Your task to perform on an android device: see tabs open on other devices in the chrome app Image 0: 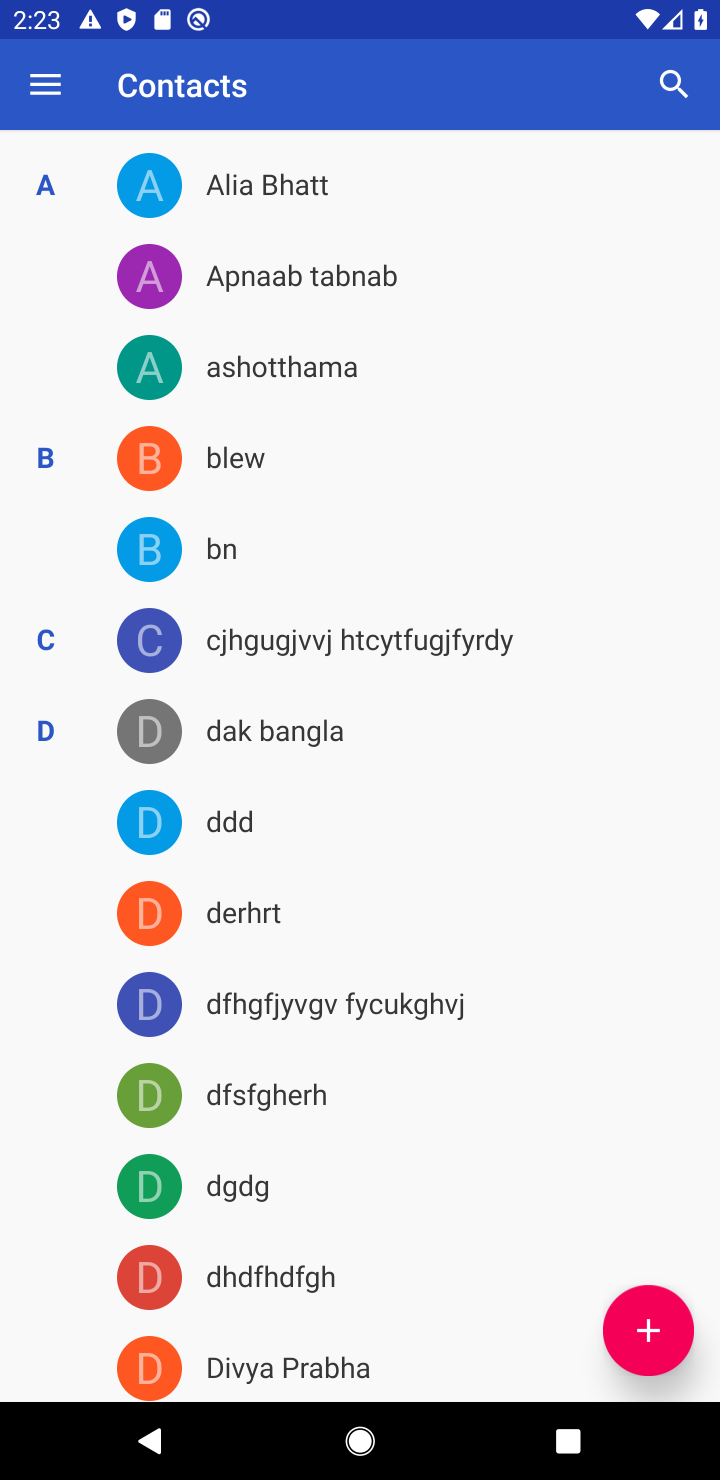
Step 0: press home button
Your task to perform on an android device: see tabs open on other devices in the chrome app Image 1: 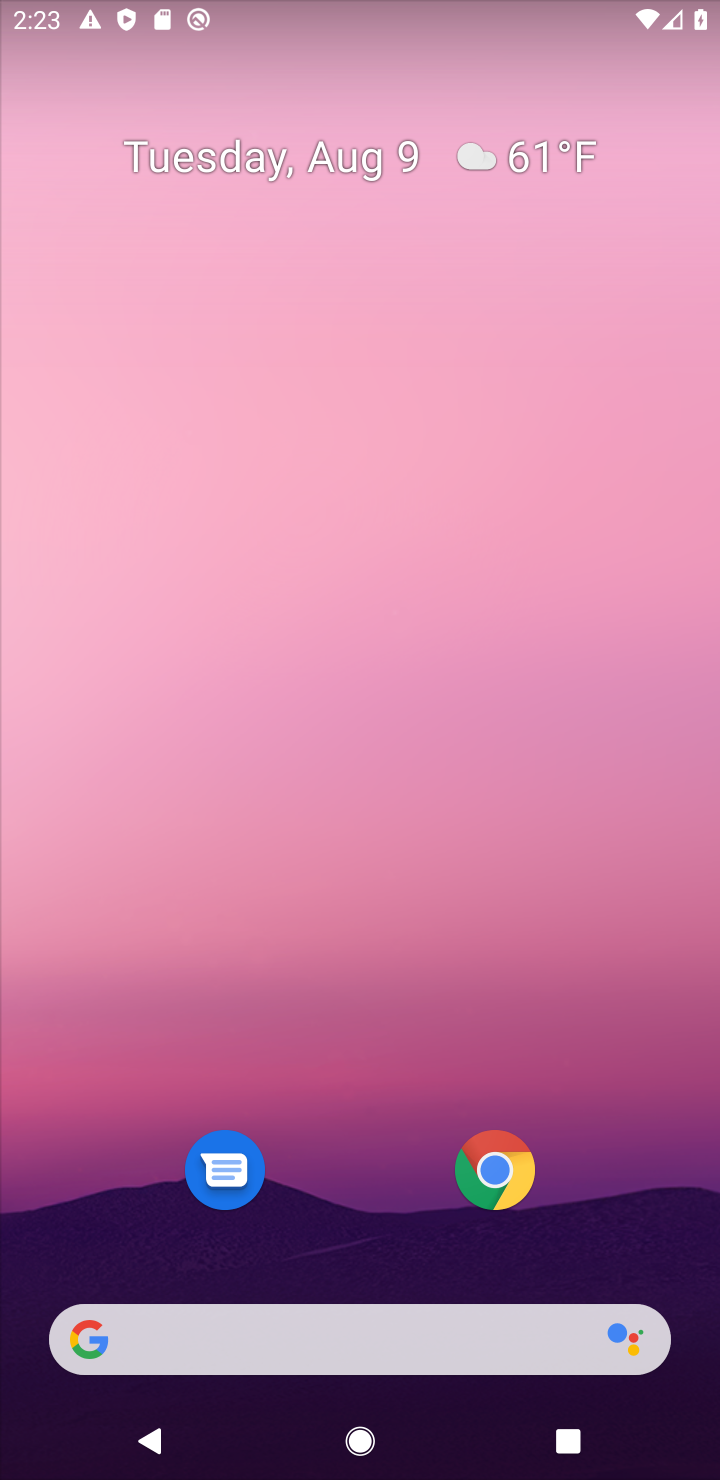
Step 1: click (497, 1164)
Your task to perform on an android device: see tabs open on other devices in the chrome app Image 2: 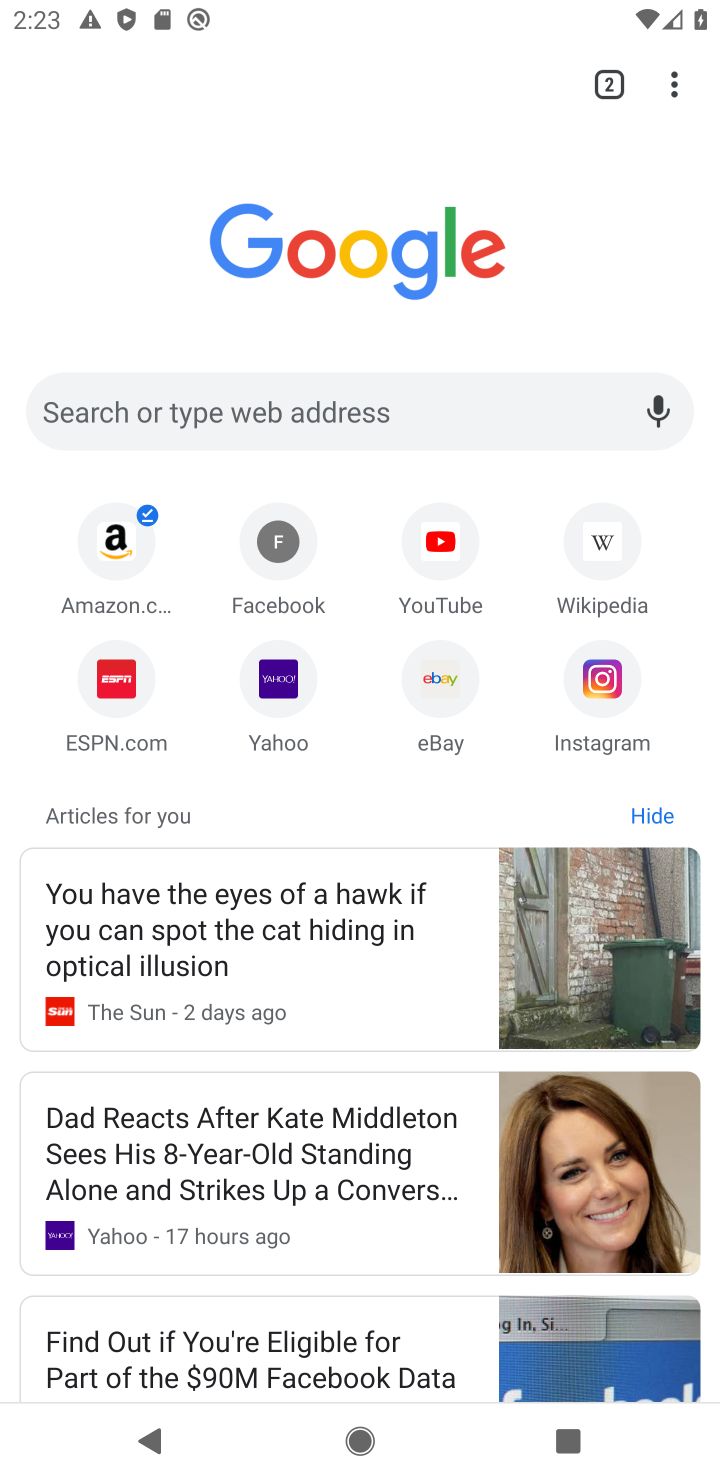
Step 2: click (675, 77)
Your task to perform on an android device: see tabs open on other devices in the chrome app Image 3: 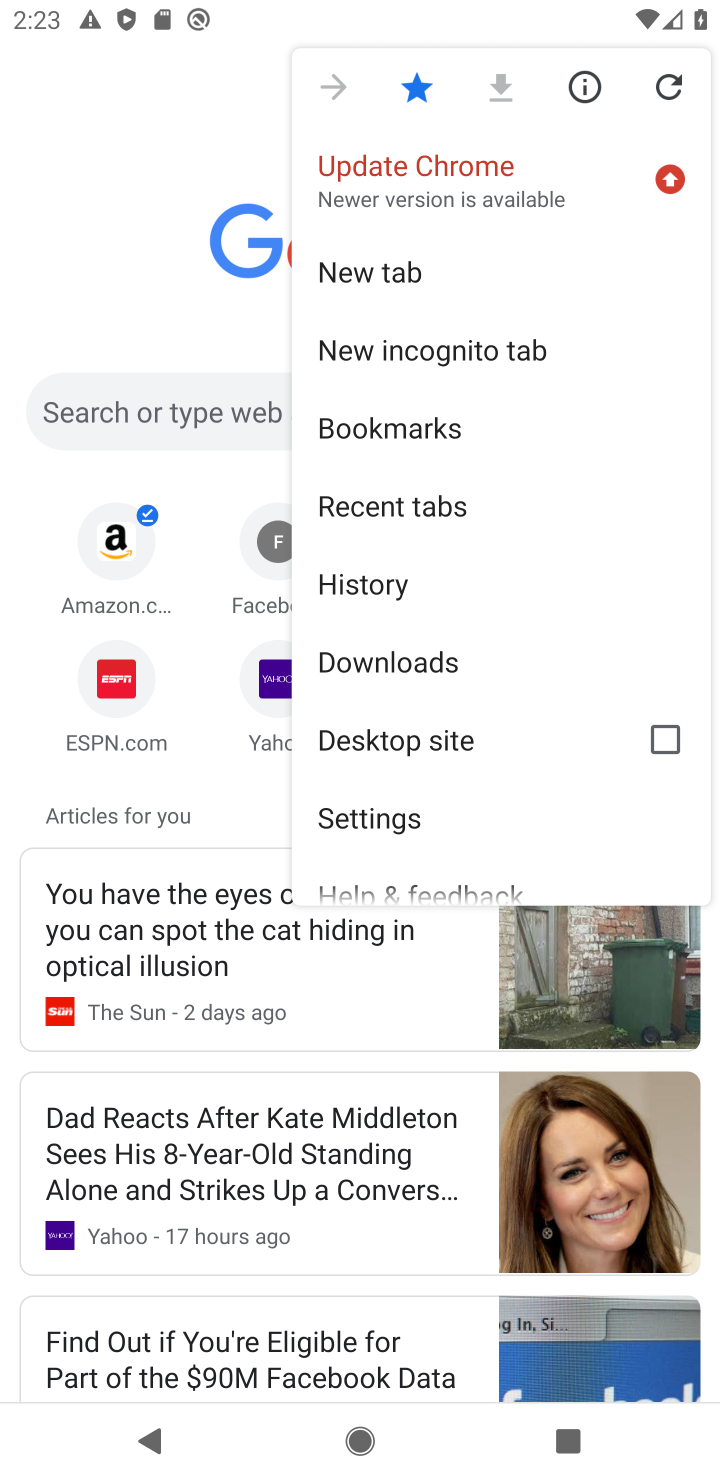
Step 3: click (416, 504)
Your task to perform on an android device: see tabs open on other devices in the chrome app Image 4: 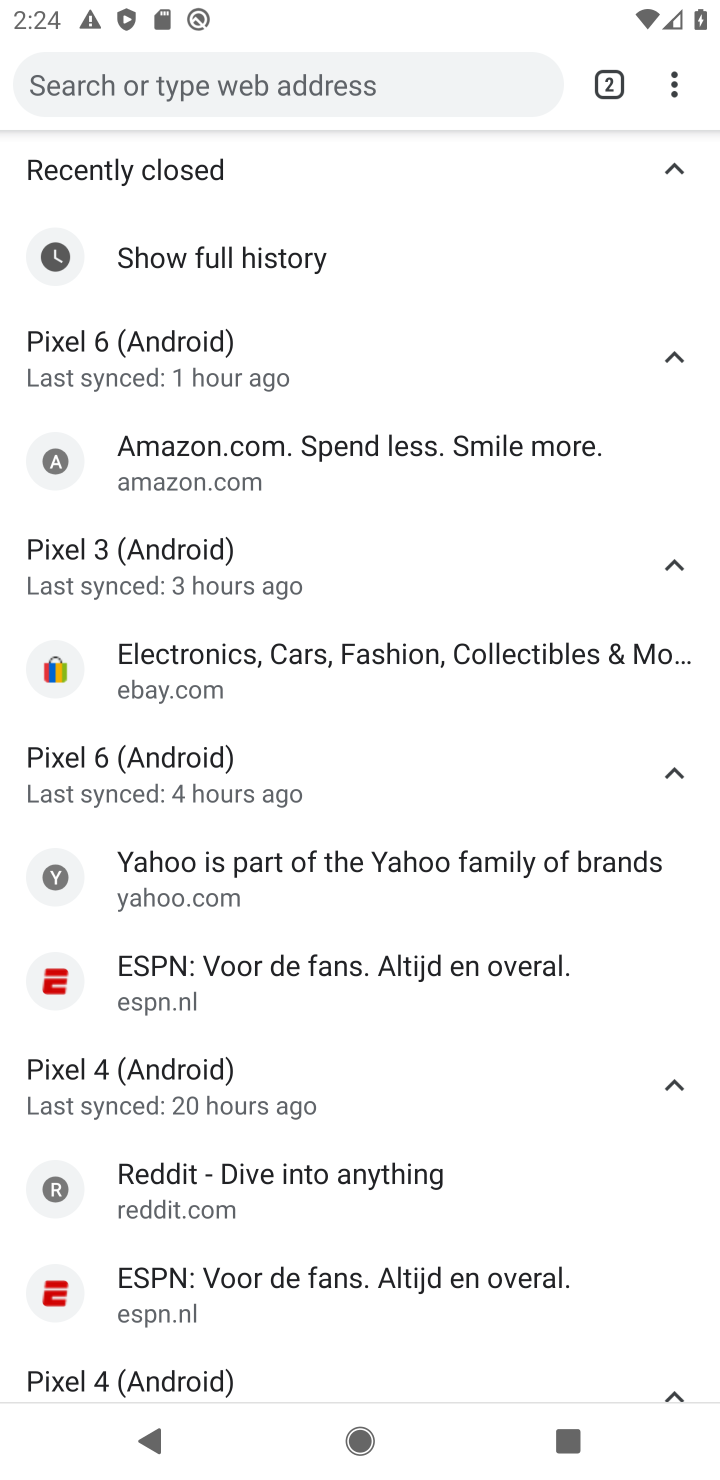
Step 4: task complete